Your task to perform on an android device: Open Chrome and go to settings Image 0: 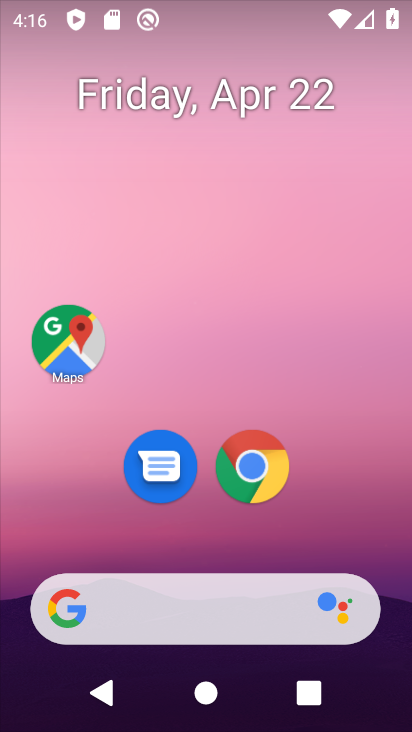
Step 0: click (306, 47)
Your task to perform on an android device: Open Chrome and go to settings Image 1: 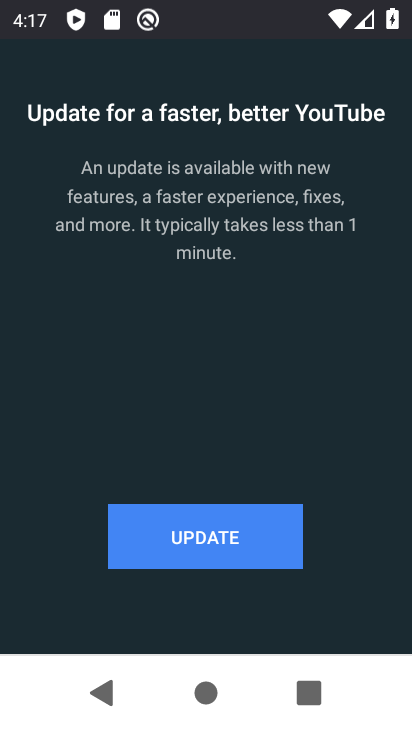
Step 1: press home button
Your task to perform on an android device: Open Chrome and go to settings Image 2: 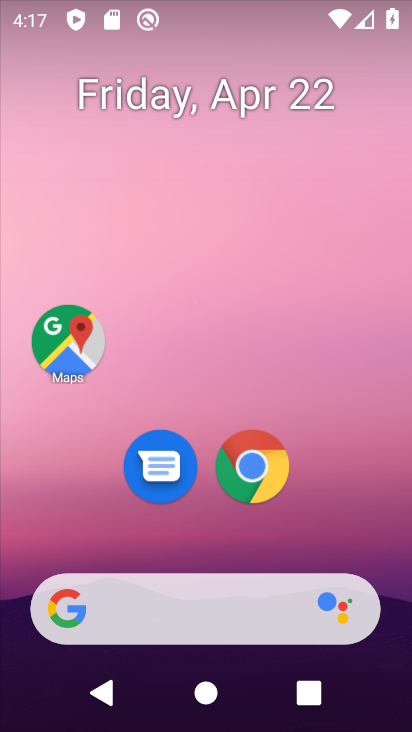
Step 2: click (267, 467)
Your task to perform on an android device: Open Chrome and go to settings Image 3: 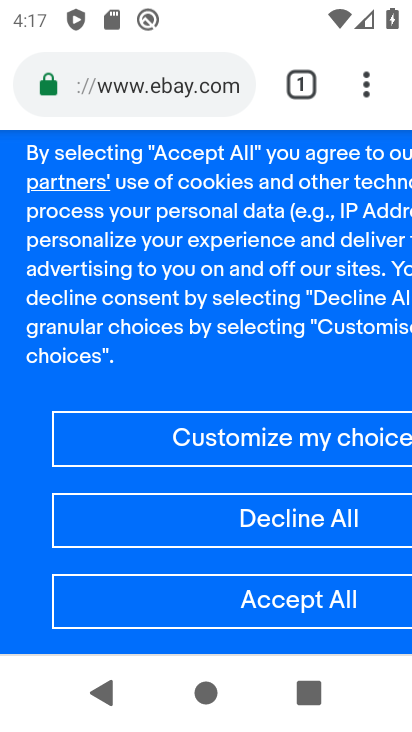
Step 3: click (354, 96)
Your task to perform on an android device: Open Chrome and go to settings Image 4: 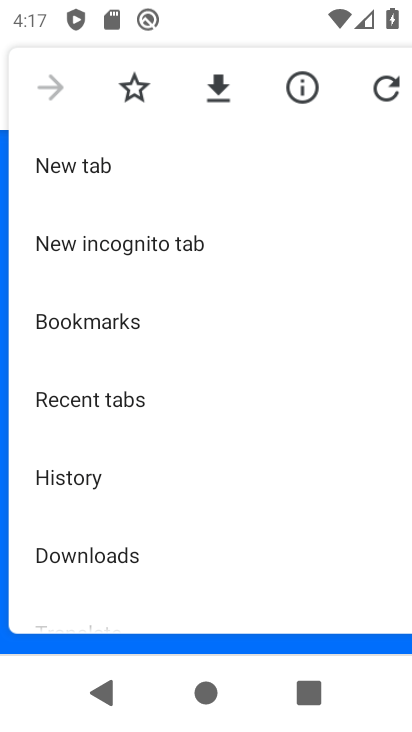
Step 4: drag from (238, 543) to (265, 136)
Your task to perform on an android device: Open Chrome and go to settings Image 5: 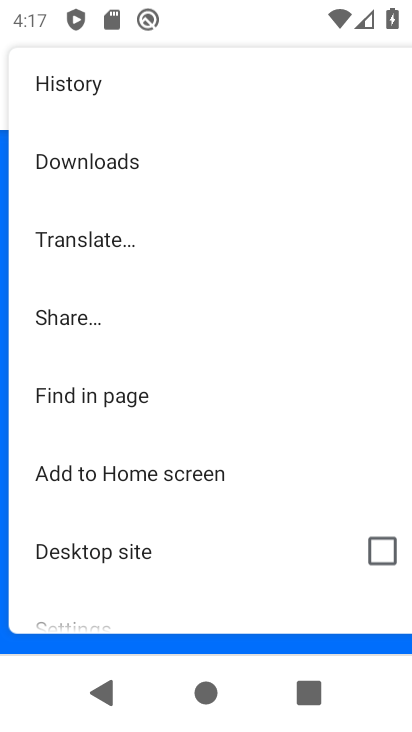
Step 5: drag from (230, 559) to (267, 219)
Your task to perform on an android device: Open Chrome and go to settings Image 6: 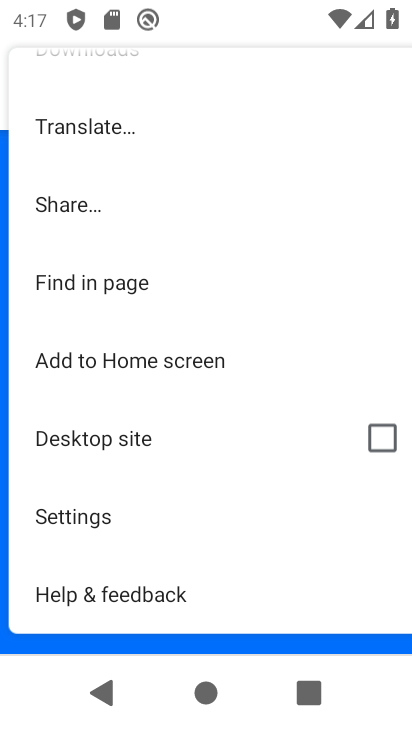
Step 6: click (238, 522)
Your task to perform on an android device: Open Chrome and go to settings Image 7: 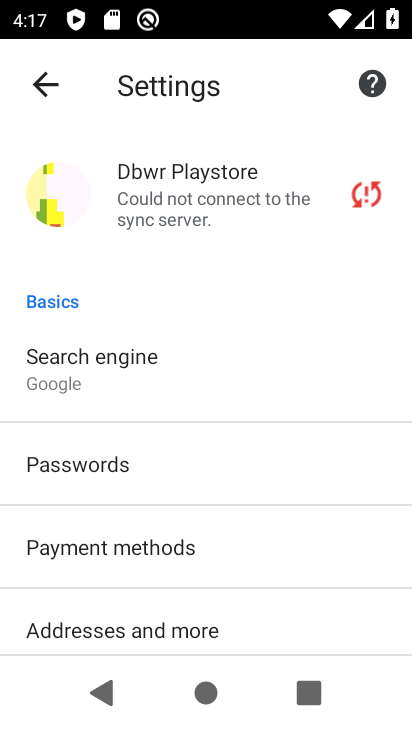
Step 7: task complete